Your task to perform on an android device: Check the news Image 0: 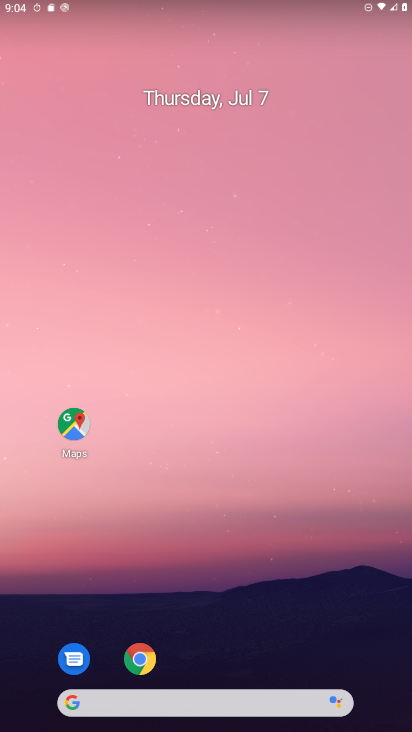
Step 0: drag from (389, 677) to (213, 99)
Your task to perform on an android device: Check the news Image 1: 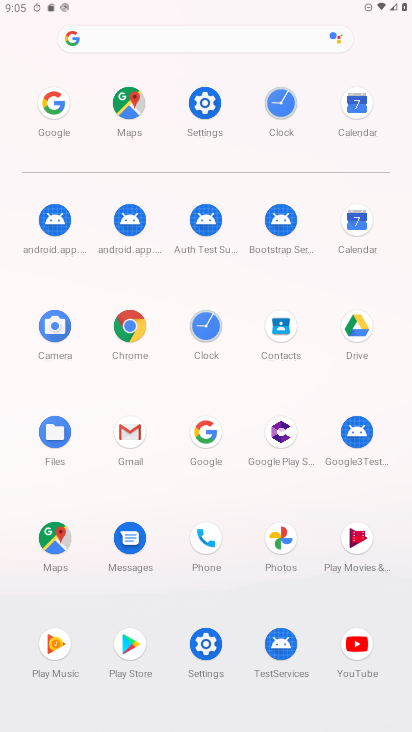
Step 1: click (206, 435)
Your task to perform on an android device: Check the news Image 2: 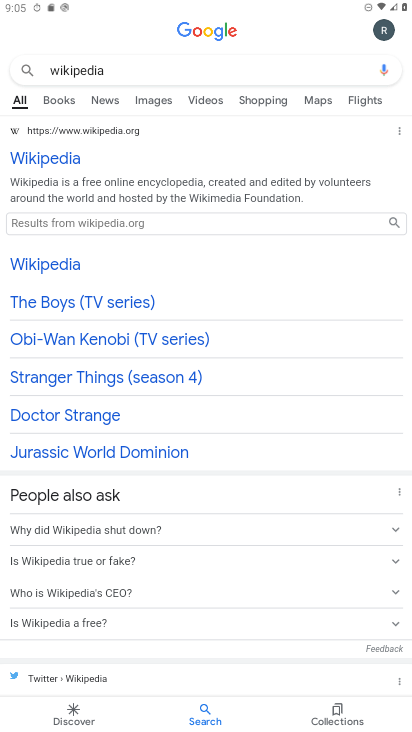
Step 2: press back button
Your task to perform on an android device: Check the news Image 3: 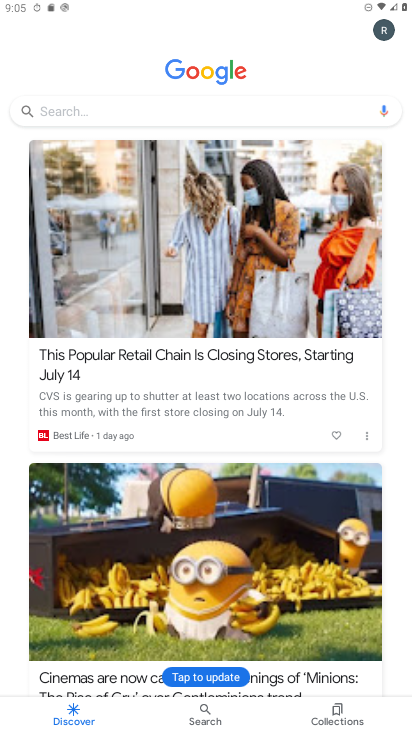
Step 3: click (133, 233)
Your task to perform on an android device: Check the news Image 4: 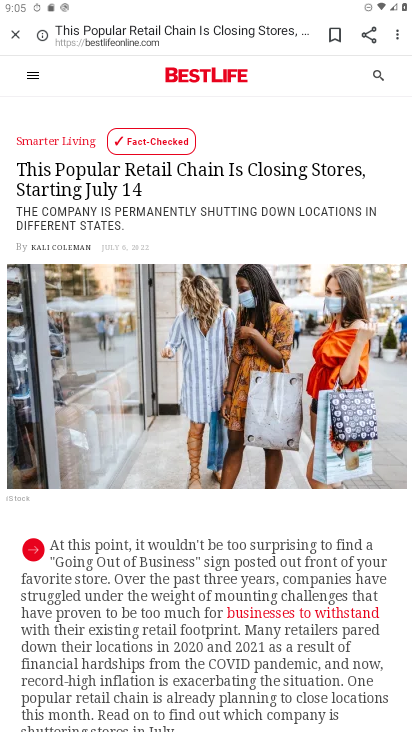
Step 4: task complete